Your task to perform on an android device: turn on priority inbox in the gmail app Image 0: 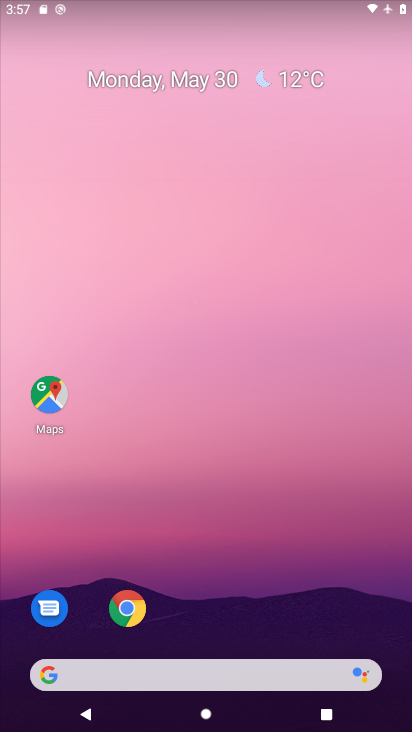
Step 0: drag from (303, 556) to (187, 39)
Your task to perform on an android device: turn on priority inbox in the gmail app Image 1: 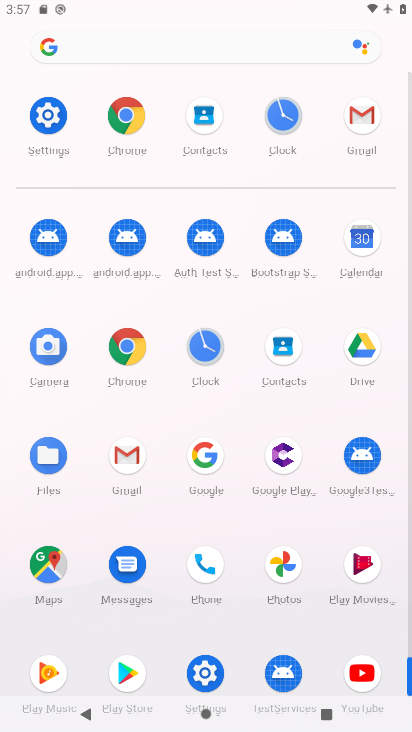
Step 1: click (363, 128)
Your task to perform on an android device: turn on priority inbox in the gmail app Image 2: 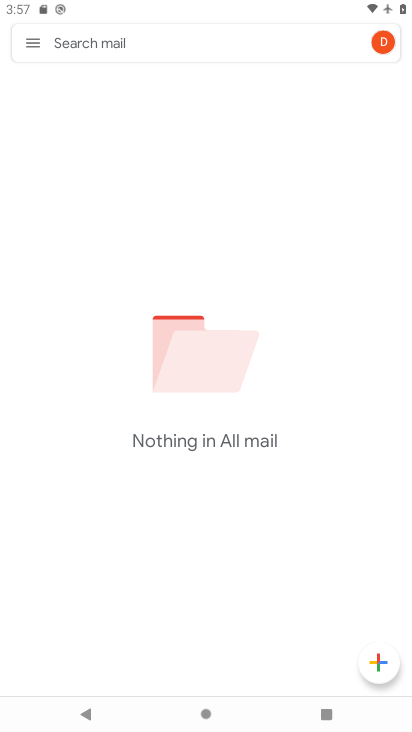
Step 2: click (30, 38)
Your task to perform on an android device: turn on priority inbox in the gmail app Image 3: 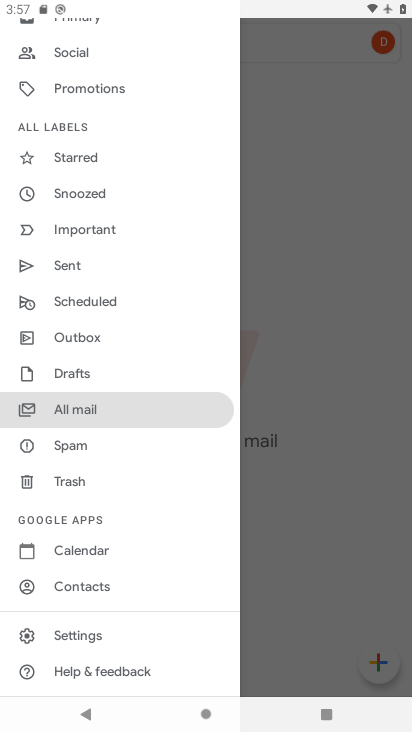
Step 3: click (130, 632)
Your task to perform on an android device: turn on priority inbox in the gmail app Image 4: 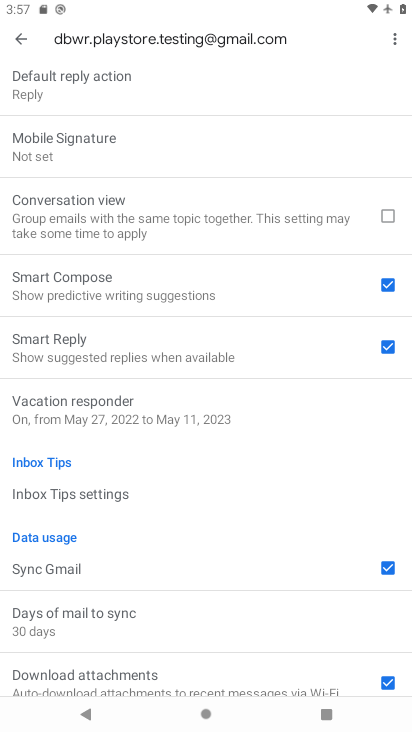
Step 4: drag from (193, 159) to (244, 697)
Your task to perform on an android device: turn on priority inbox in the gmail app Image 5: 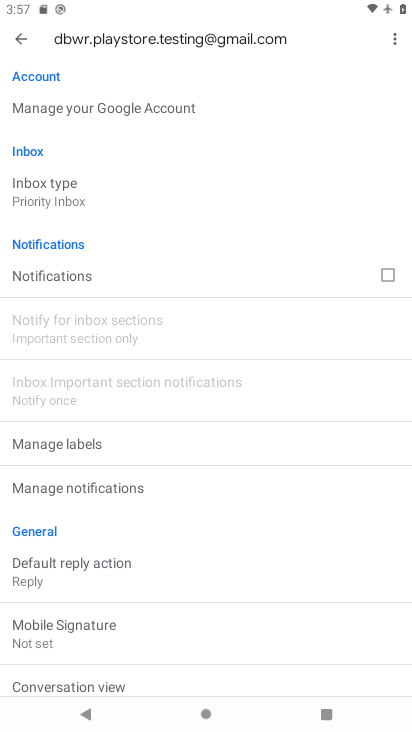
Step 5: click (110, 196)
Your task to perform on an android device: turn on priority inbox in the gmail app Image 6: 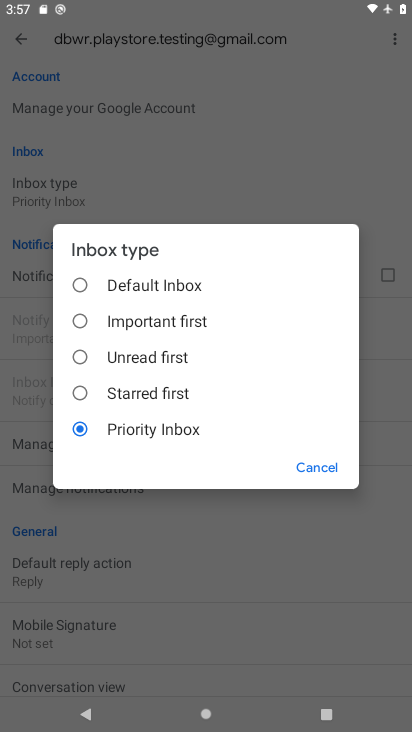
Step 6: task complete